Your task to perform on an android device: Open display settings Image 0: 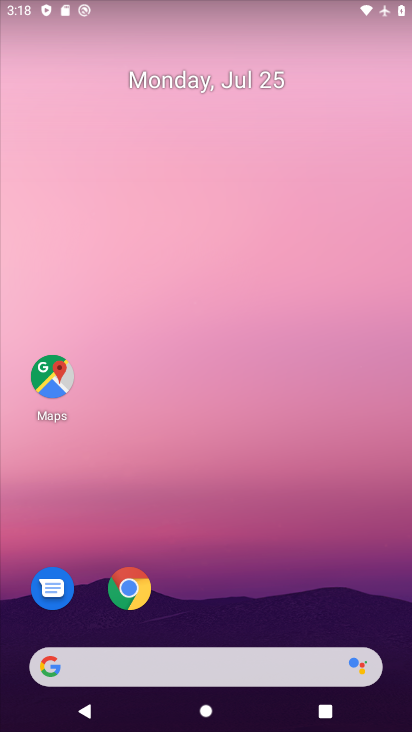
Step 0: drag from (222, 722) to (206, 64)
Your task to perform on an android device: Open display settings Image 1: 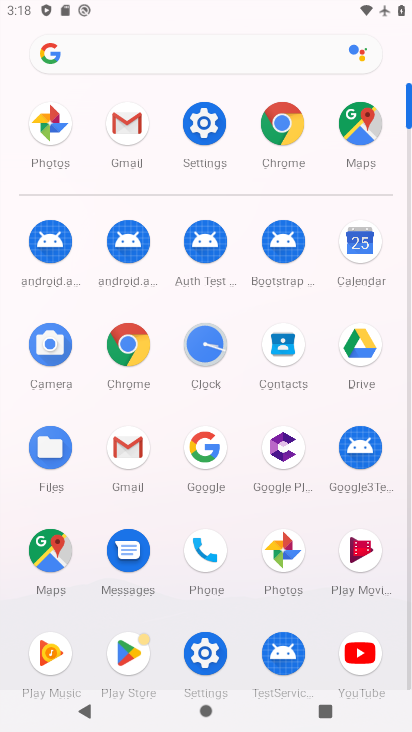
Step 1: click (207, 119)
Your task to perform on an android device: Open display settings Image 2: 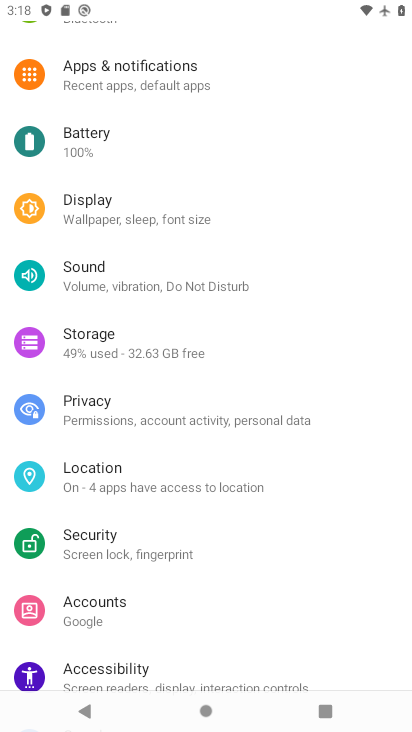
Step 2: click (95, 206)
Your task to perform on an android device: Open display settings Image 3: 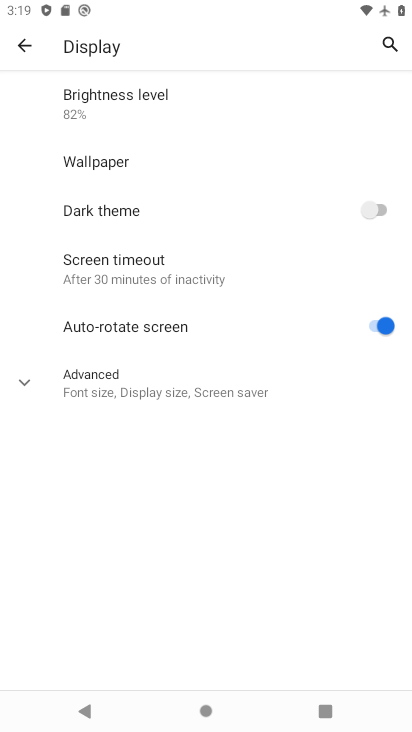
Step 3: task complete